Your task to perform on an android device: toggle javascript in the chrome app Image 0: 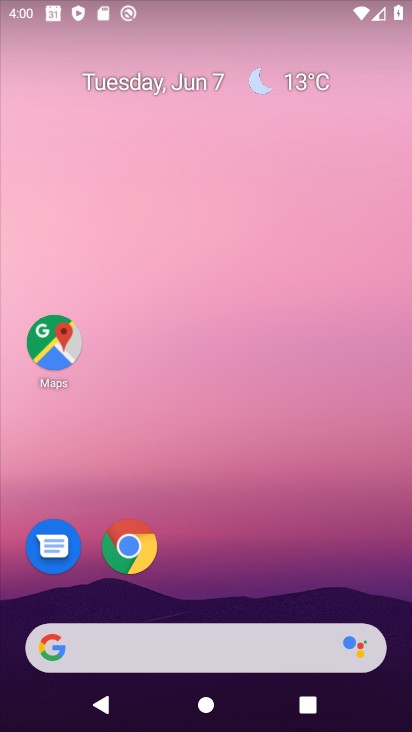
Step 0: click (106, 545)
Your task to perform on an android device: toggle javascript in the chrome app Image 1: 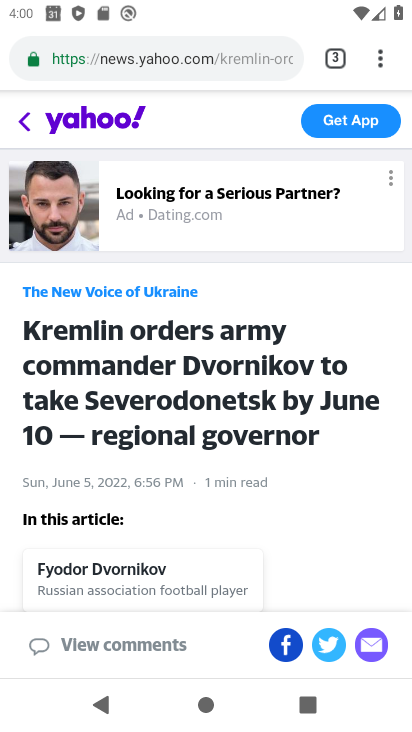
Step 1: click (383, 49)
Your task to perform on an android device: toggle javascript in the chrome app Image 2: 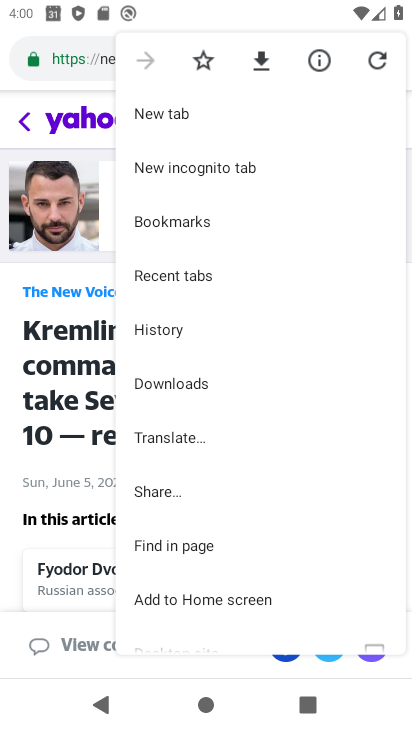
Step 2: drag from (237, 642) to (288, 145)
Your task to perform on an android device: toggle javascript in the chrome app Image 3: 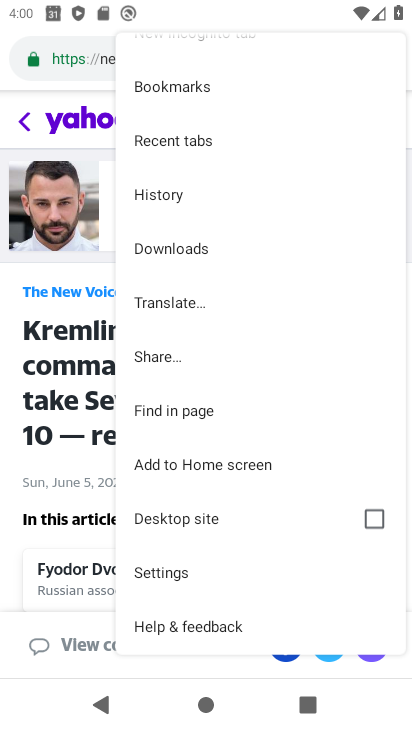
Step 3: click (182, 570)
Your task to perform on an android device: toggle javascript in the chrome app Image 4: 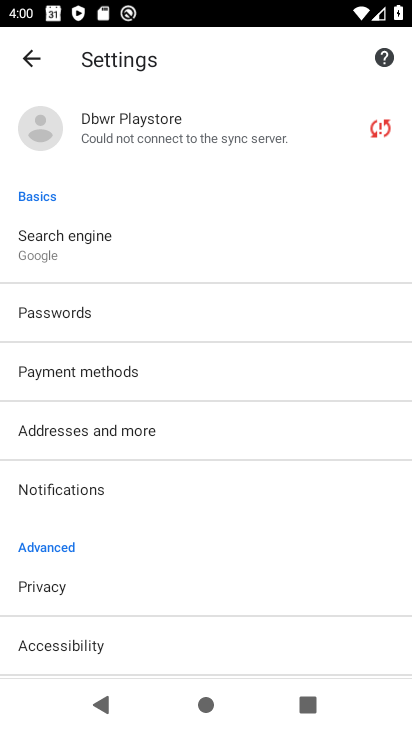
Step 4: drag from (125, 670) to (251, 235)
Your task to perform on an android device: toggle javascript in the chrome app Image 5: 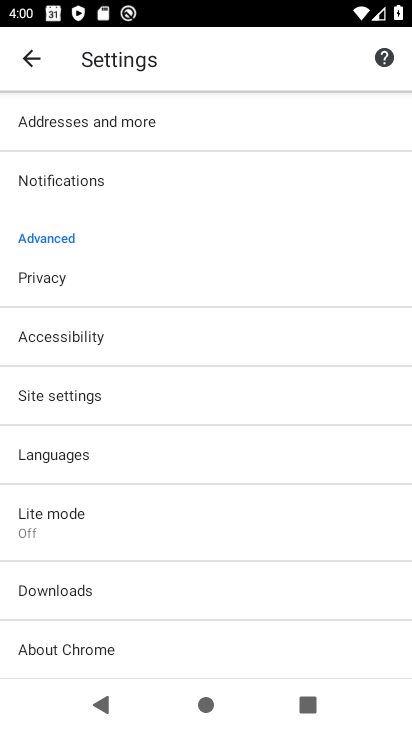
Step 5: click (131, 382)
Your task to perform on an android device: toggle javascript in the chrome app Image 6: 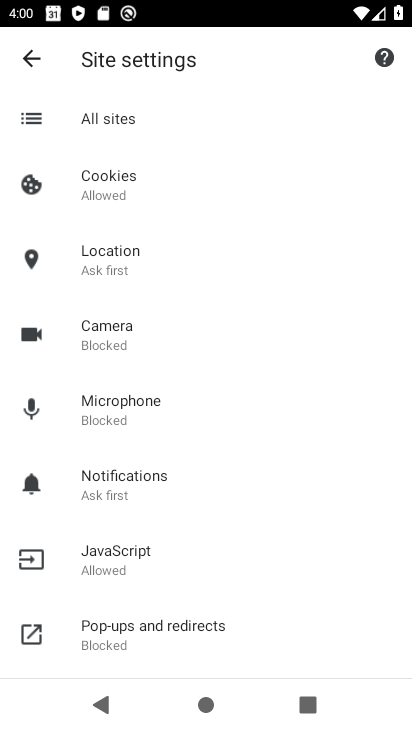
Step 6: click (126, 551)
Your task to perform on an android device: toggle javascript in the chrome app Image 7: 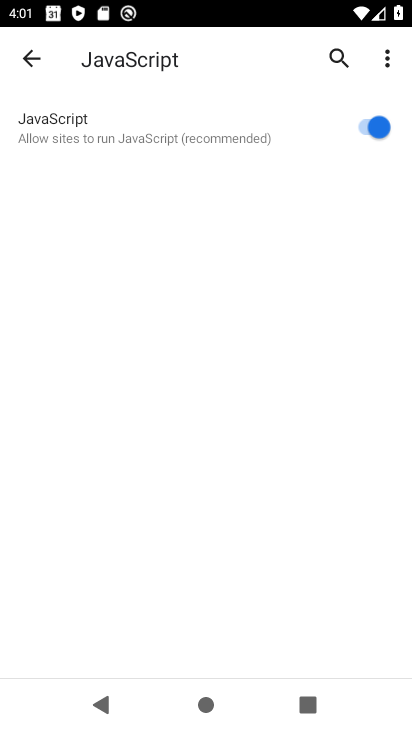
Step 7: click (374, 134)
Your task to perform on an android device: toggle javascript in the chrome app Image 8: 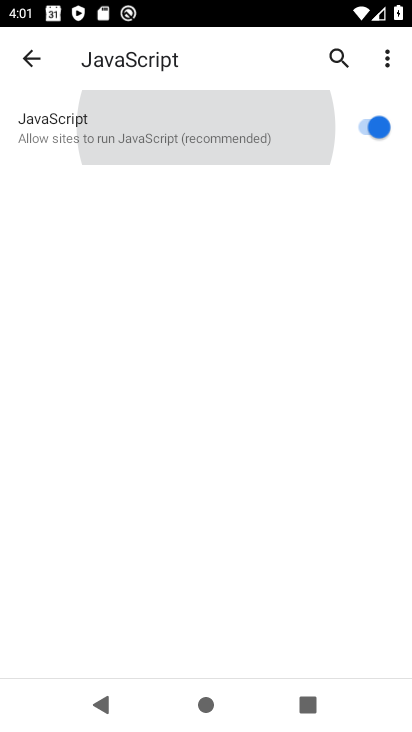
Step 8: click (374, 134)
Your task to perform on an android device: toggle javascript in the chrome app Image 9: 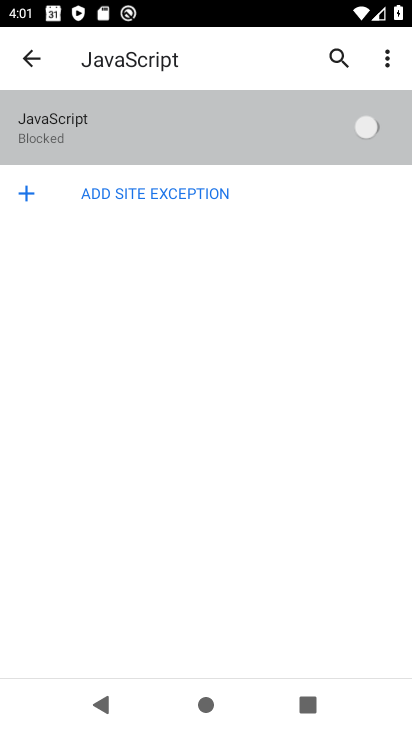
Step 9: click (374, 134)
Your task to perform on an android device: toggle javascript in the chrome app Image 10: 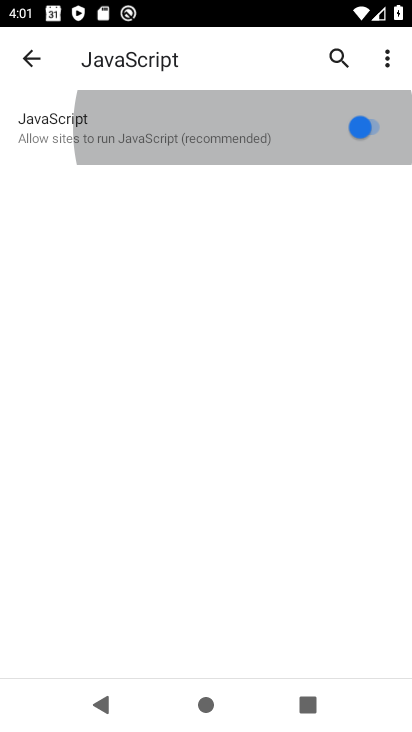
Step 10: click (374, 134)
Your task to perform on an android device: toggle javascript in the chrome app Image 11: 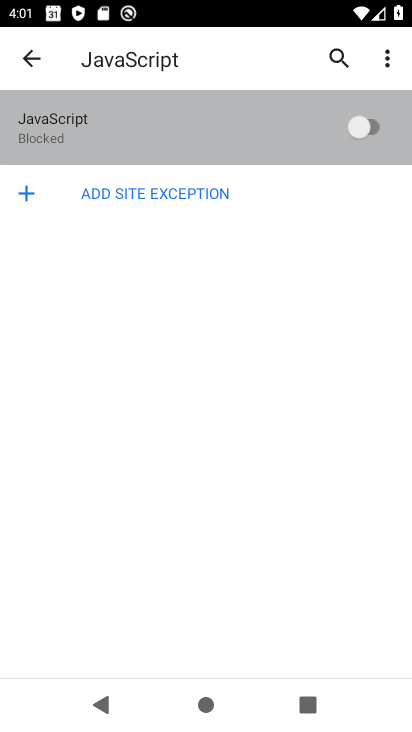
Step 11: click (374, 134)
Your task to perform on an android device: toggle javascript in the chrome app Image 12: 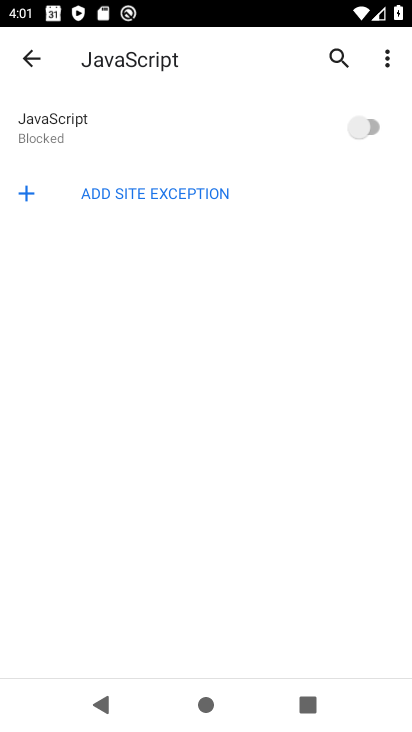
Step 12: task complete